Your task to perform on an android device: open app "ZOOM Cloud Meetings" (install if not already installed) Image 0: 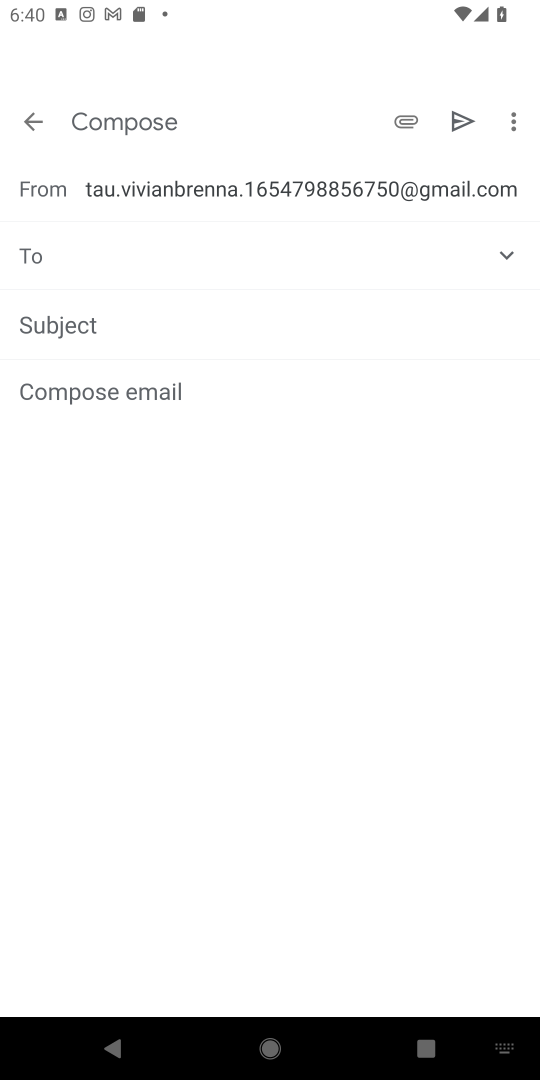
Step 0: press home button
Your task to perform on an android device: open app "ZOOM Cloud Meetings" (install if not already installed) Image 1: 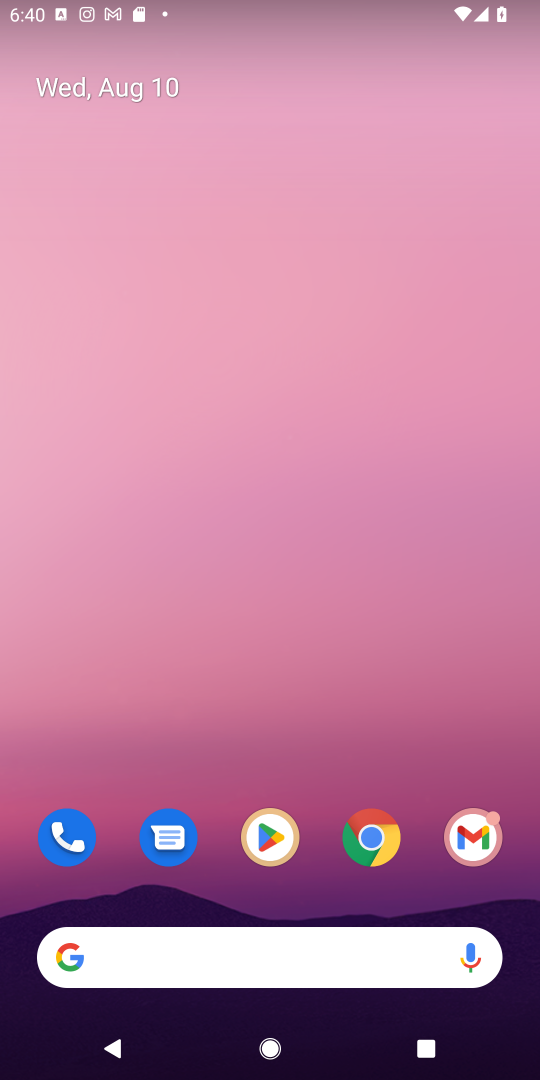
Step 1: click (267, 841)
Your task to perform on an android device: open app "ZOOM Cloud Meetings" (install if not already installed) Image 2: 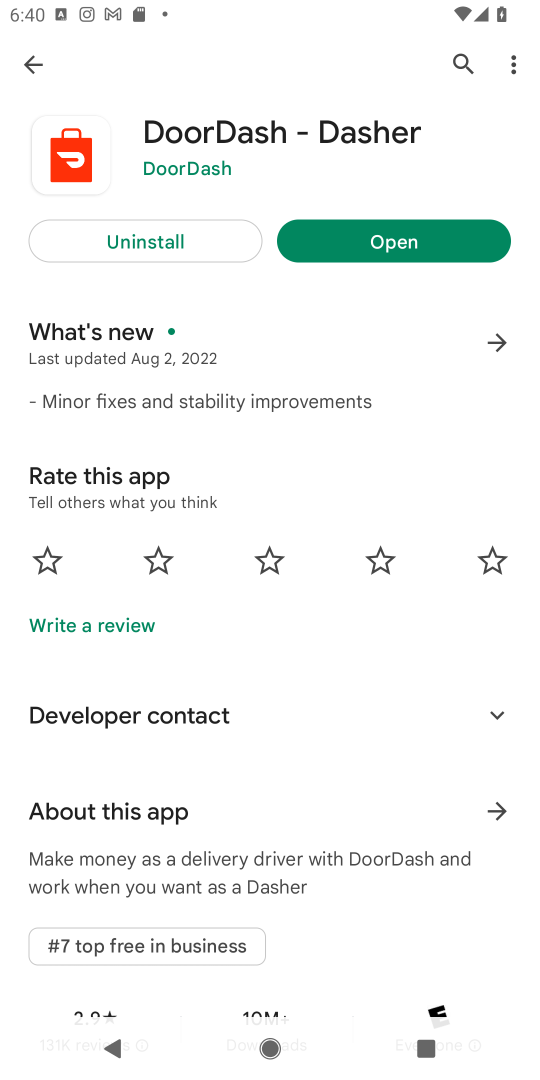
Step 2: click (461, 59)
Your task to perform on an android device: open app "ZOOM Cloud Meetings" (install if not already installed) Image 3: 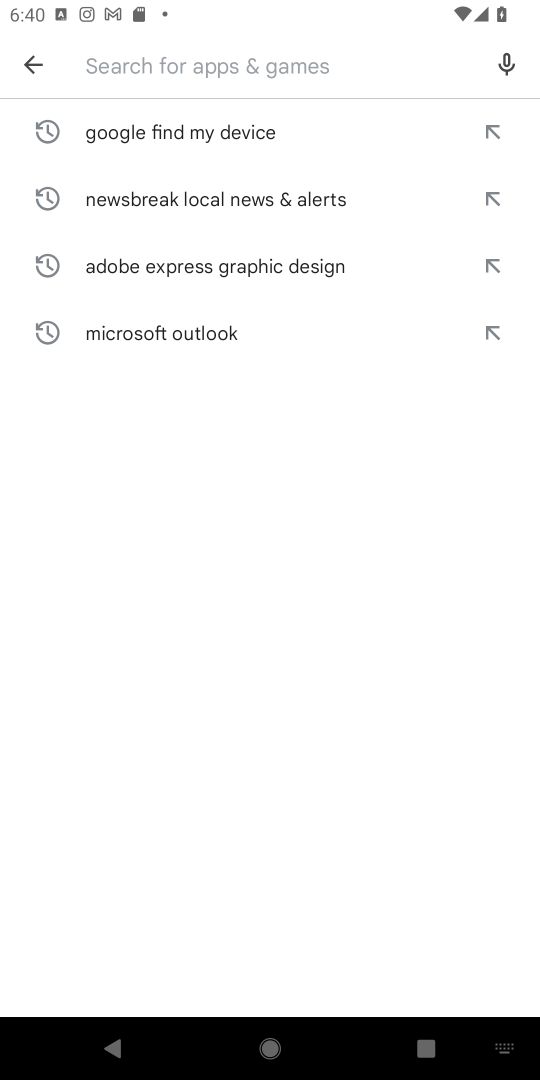
Step 3: type "ZOOM Cloud Meetings"
Your task to perform on an android device: open app "ZOOM Cloud Meetings" (install if not already installed) Image 4: 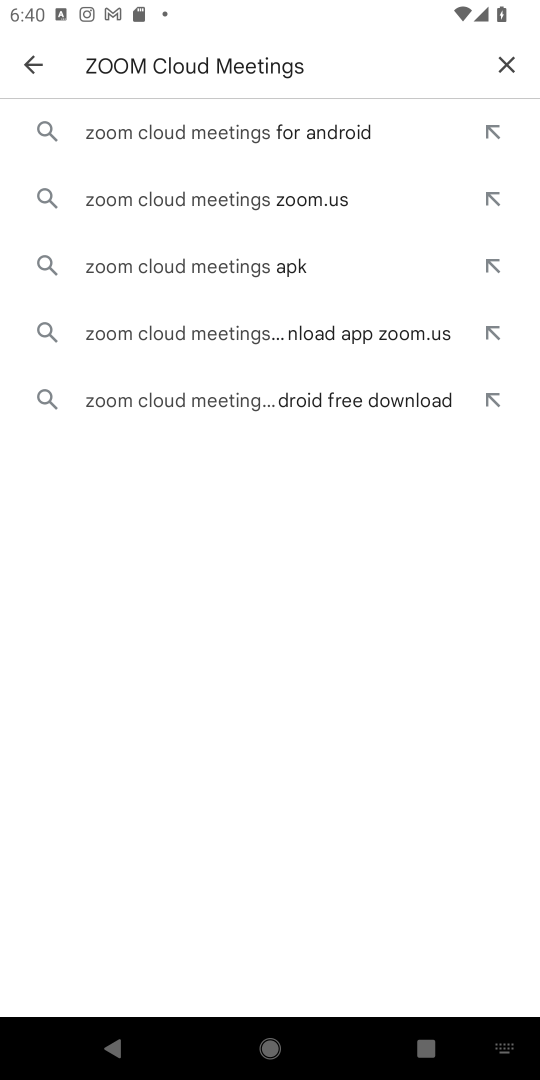
Step 4: click (206, 122)
Your task to perform on an android device: open app "ZOOM Cloud Meetings" (install if not already installed) Image 5: 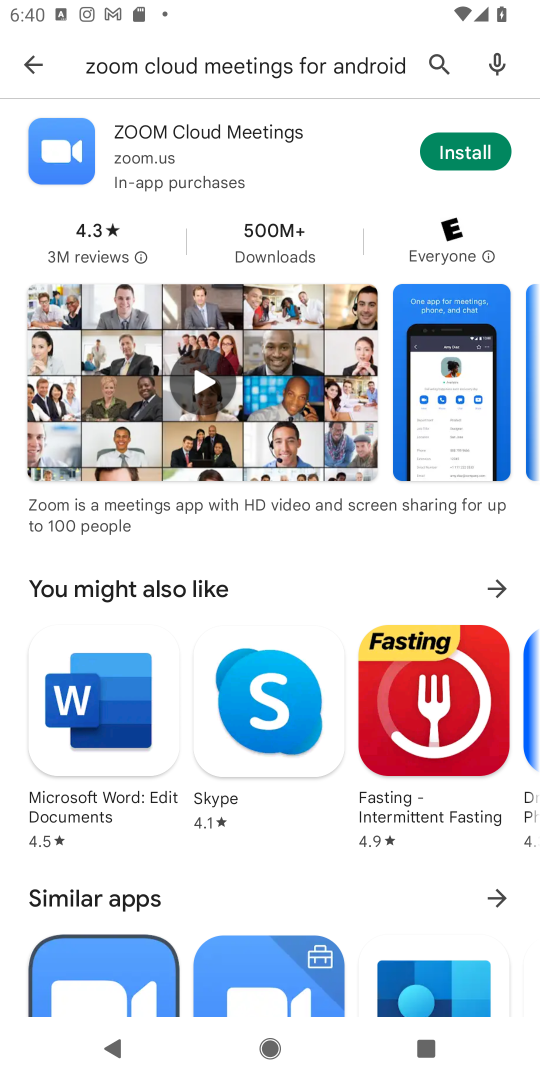
Step 5: click (491, 160)
Your task to perform on an android device: open app "ZOOM Cloud Meetings" (install if not already installed) Image 6: 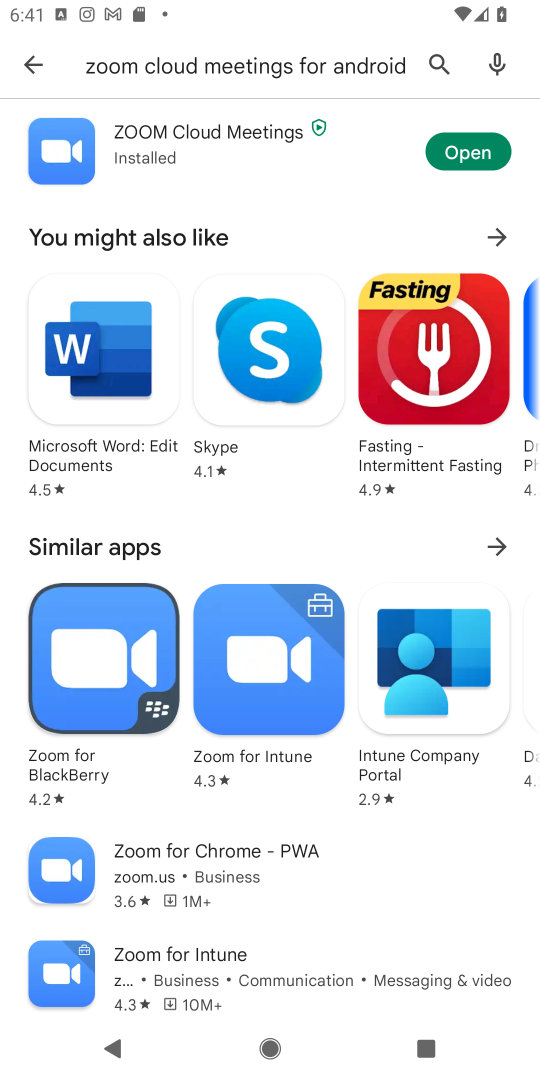
Step 6: task complete